Your task to perform on an android device: Find coffee shops on Maps Image 0: 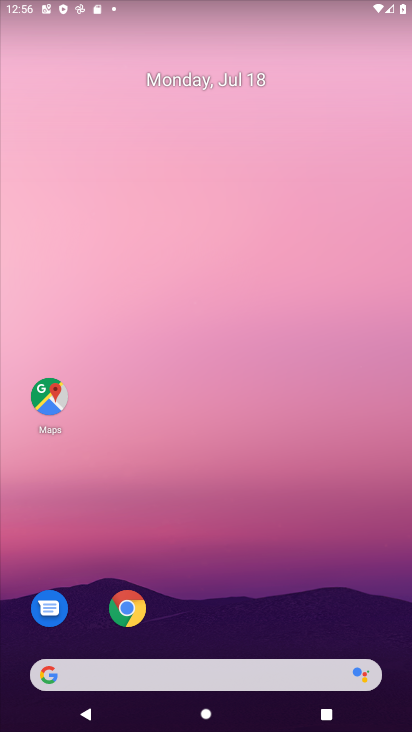
Step 0: drag from (398, 654) to (280, 107)
Your task to perform on an android device: Find coffee shops on Maps Image 1: 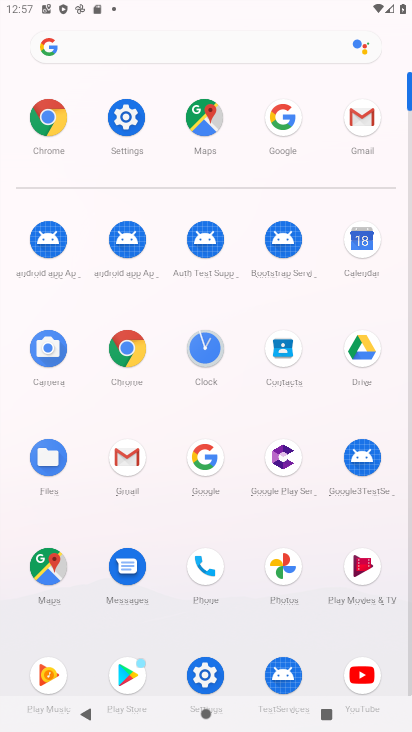
Step 1: click (46, 591)
Your task to perform on an android device: Find coffee shops on Maps Image 2: 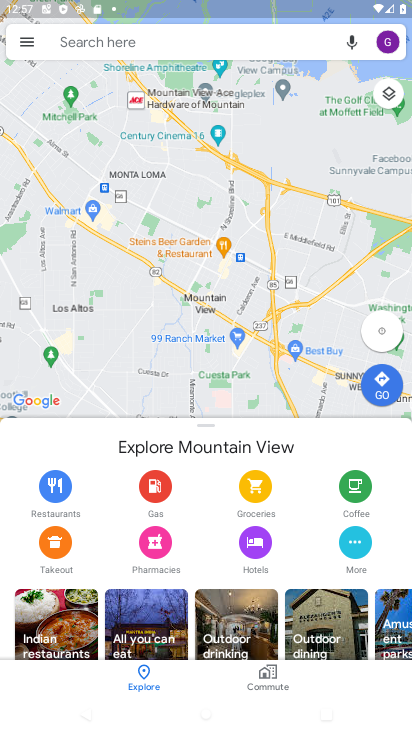
Step 2: click (55, 34)
Your task to perform on an android device: Find coffee shops on Maps Image 3: 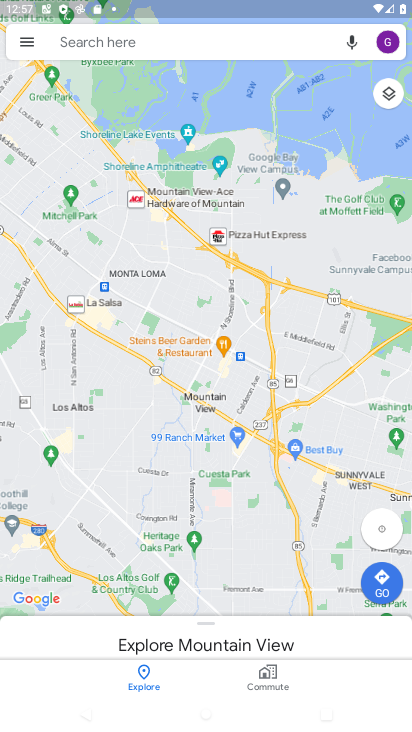
Step 3: click (153, 38)
Your task to perform on an android device: Find coffee shops on Maps Image 4: 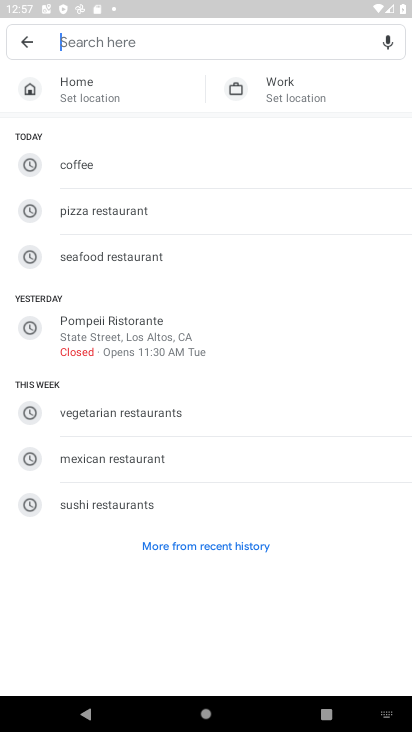
Step 4: click (106, 165)
Your task to perform on an android device: Find coffee shops on Maps Image 5: 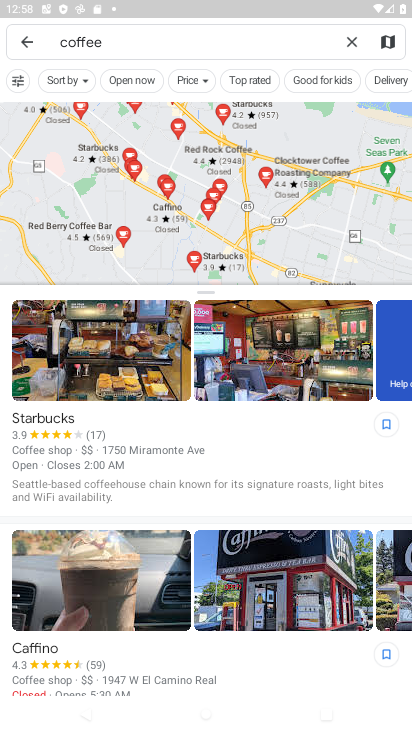
Step 5: task complete